Your task to perform on an android device: Open Amazon Image 0: 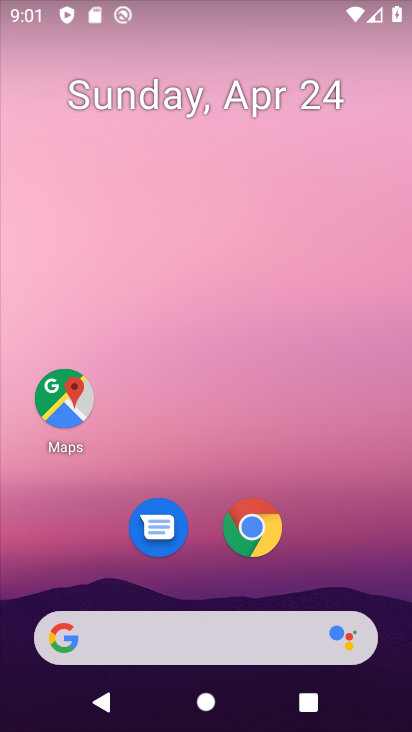
Step 0: click (341, 20)
Your task to perform on an android device: Open Amazon Image 1: 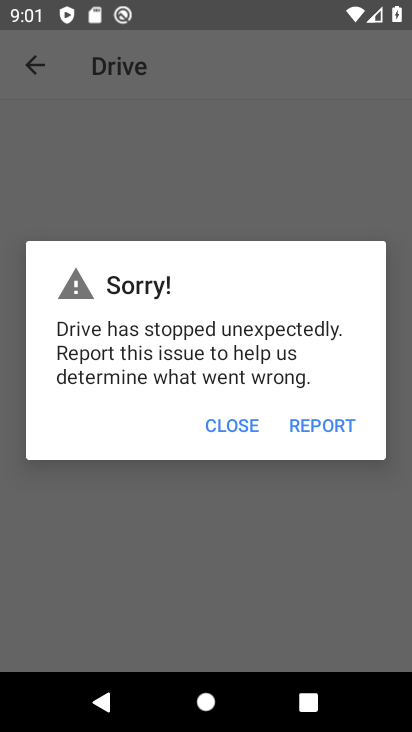
Step 1: press back button
Your task to perform on an android device: Open Amazon Image 2: 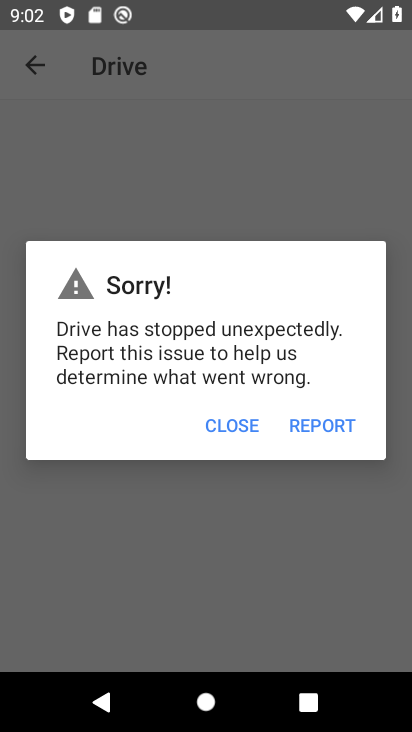
Step 2: press back button
Your task to perform on an android device: Open Amazon Image 3: 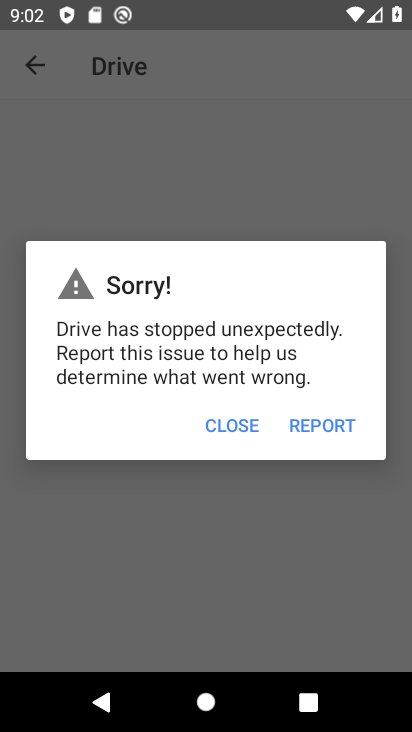
Step 3: press home button
Your task to perform on an android device: Open Amazon Image 4: 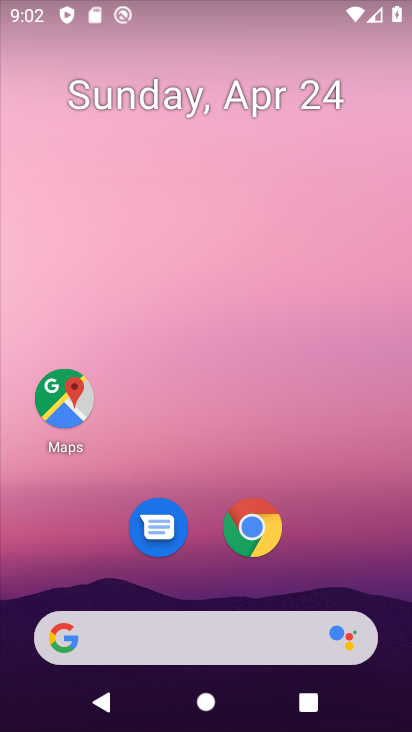
Step 4: click (262, 526)
Your task to perform on an android device: Open Amazon Image 5: 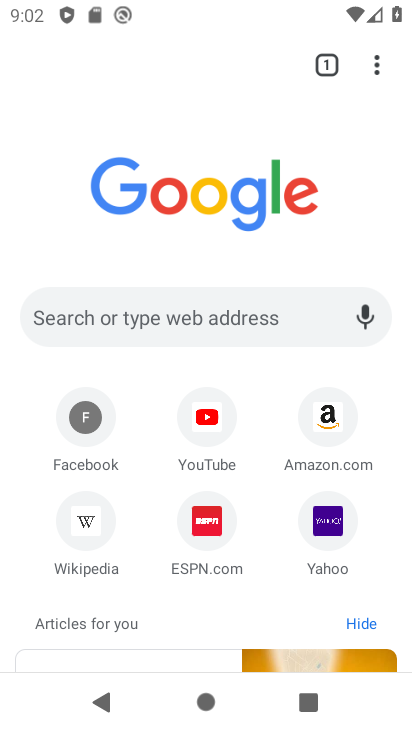
Step 5: click (351, 431)
Your task to perform on an android device: Open Amazon Image 6: 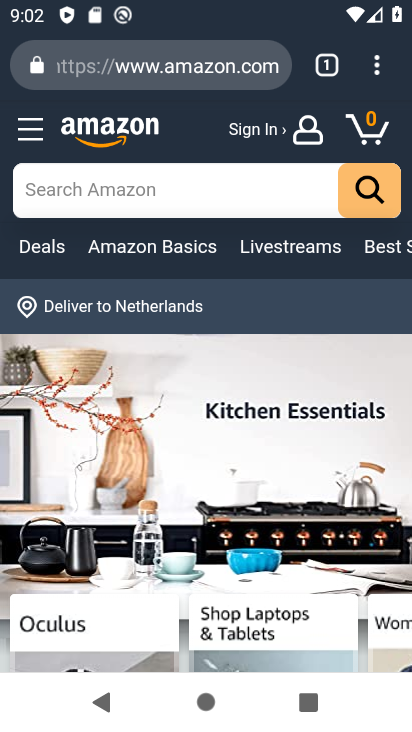
Step 6: task complete